Your task to perform on an android device: Open Android settings Image 0: 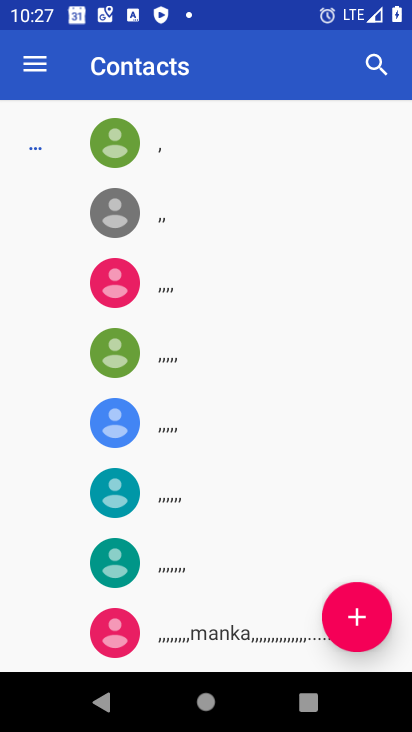
Step 0: press home button
Your task to perform on an android device: Open Android settings Image 1: 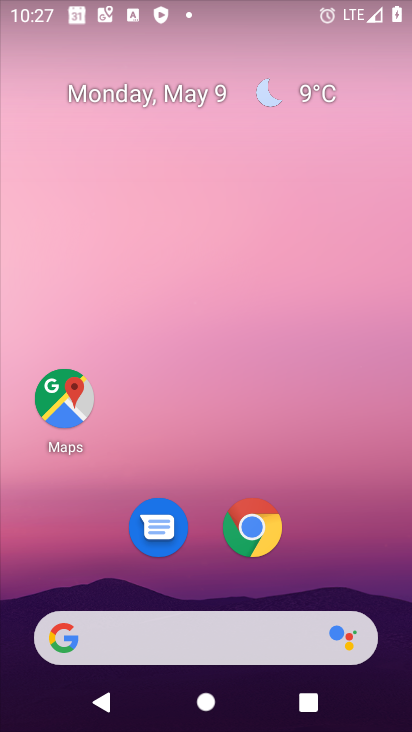
Step 1: drag from (365, 600) to (280, 119)
Your task to perform on an android device: Open Android settings Image 2: 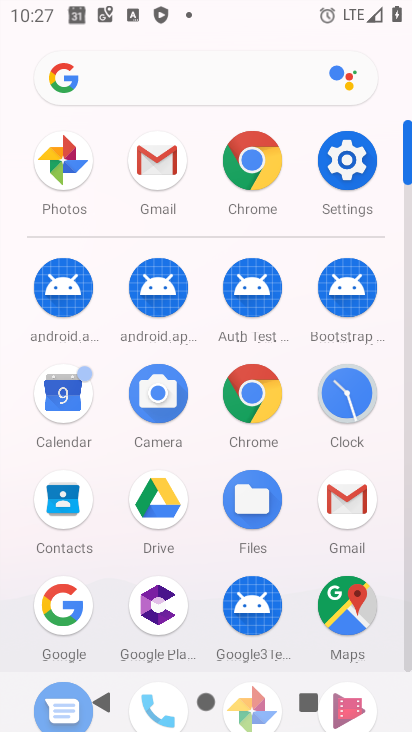
Step 2: click (404, 648)
Your task to perform on an android device: Open Android settings Image 3: 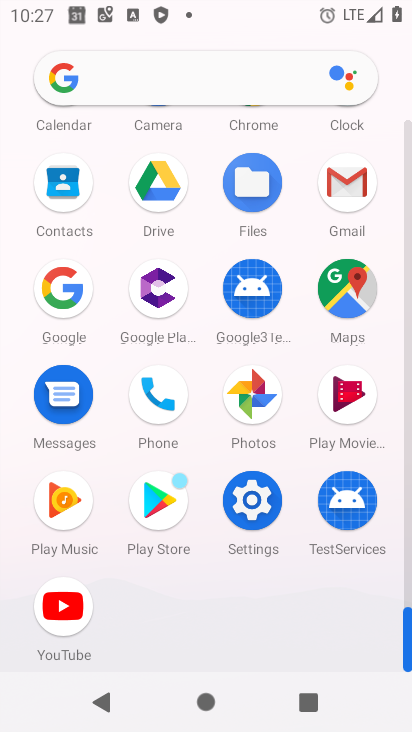
Step 3: click (251, 502)
Your task to perform on an android device: Open Android settings Image 4: 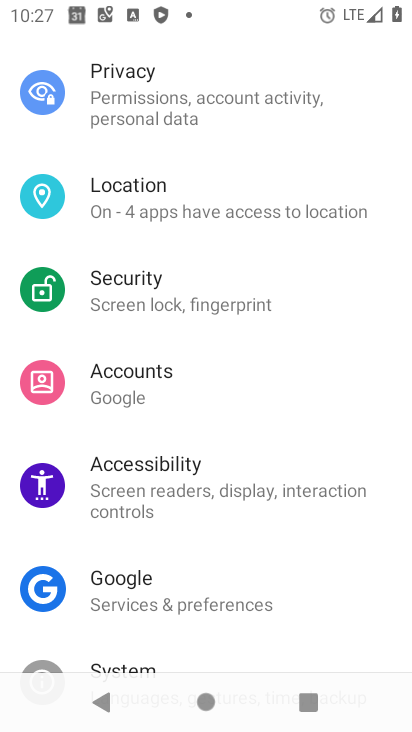
Step 4: drag from (226, 618) to (265, 243)
Your task to perform on an android device: Open Android settings Image 5: 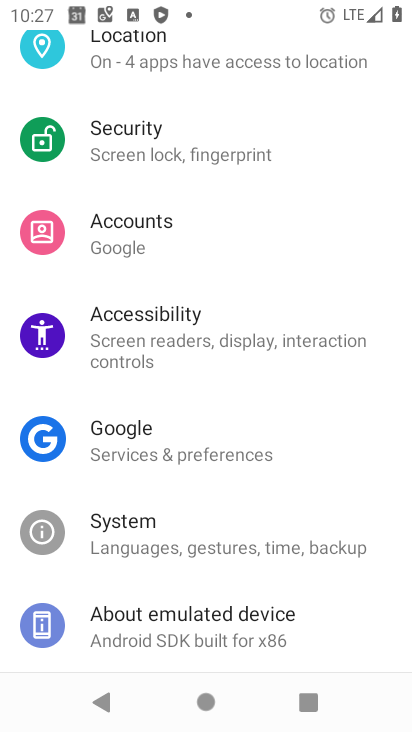
Step 5: click (137, 623)
Your task to perform on an android device: Open Android settings Image 6: 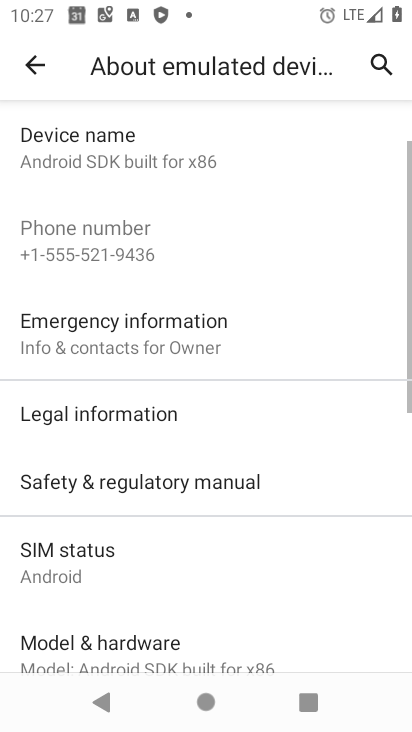
Step 6: drag from (342, 593) to (334, 313)
Your task to perform on an android device: Open Android settings Image 7: 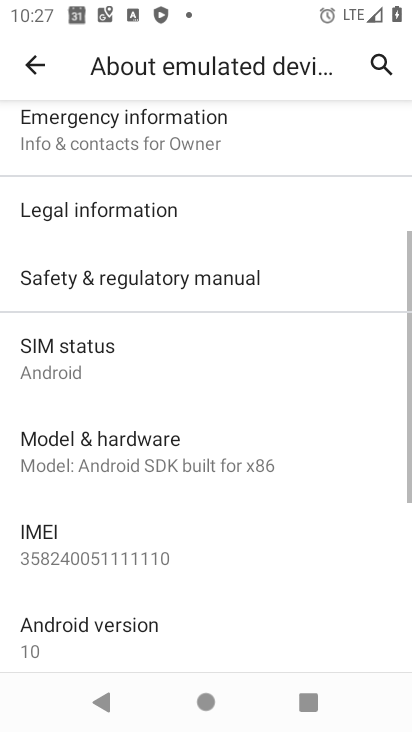
Step 7: click (326, 332)
Your task to perform on an android device: Open Android settings Image 8: 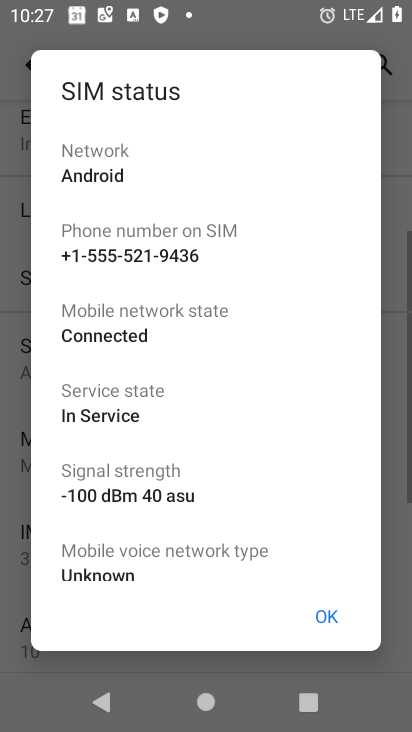
Step 8: click (325, 617)
Your task to perform on an android device: Open Android settings Image 9: 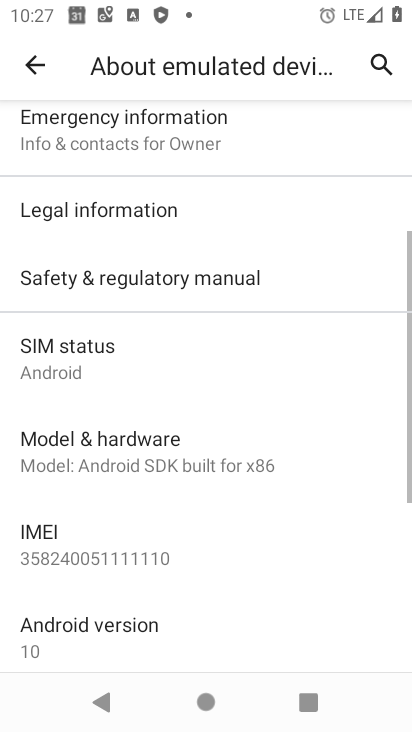
Step 9: task complete